Your task to perform on an android device: Open sound settings Image 0: 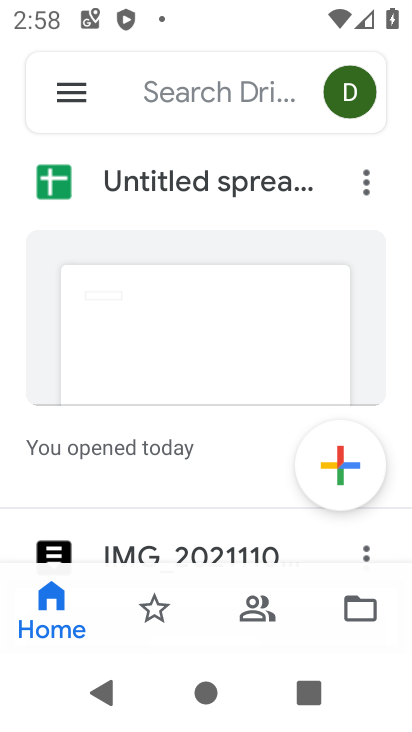
Step 0: press home button
Your task to perform on an android device: Open sound settings Image 1: 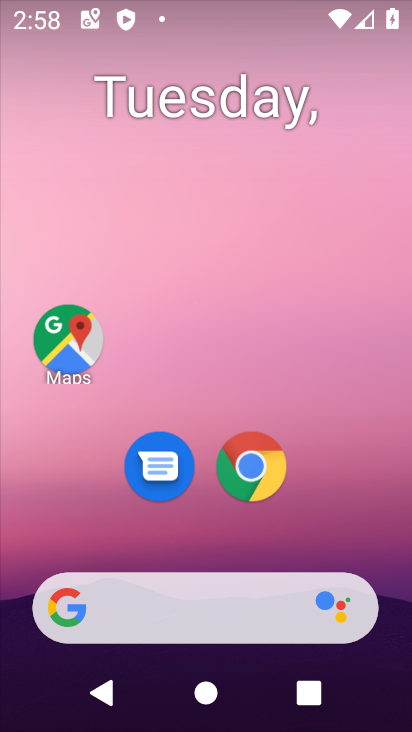
Step 1: drag from (318, 521) to (266, 92)
Your task to perform on an android device: Open sound settings Image 2: 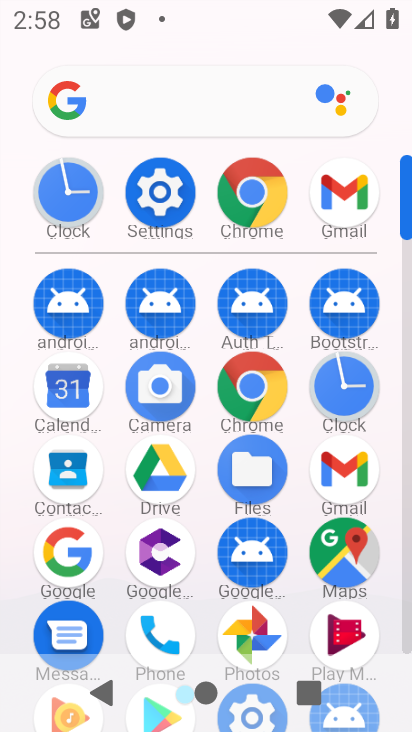
Step 2: click (155, 215)
Your task to perform on an android device: Open sound settings Image 3: 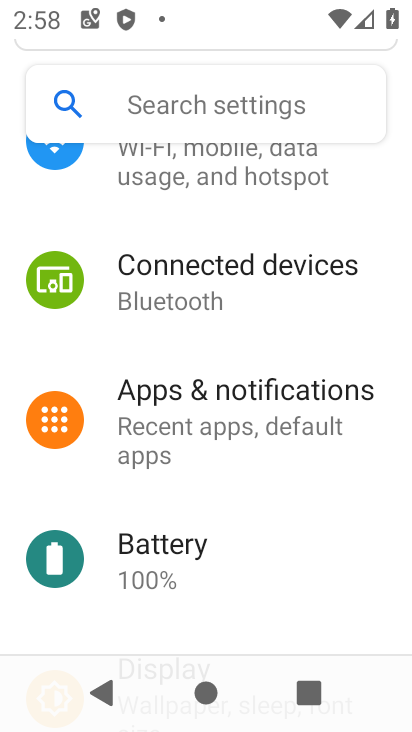
Step 3: drag from (204, 519) to (225, 172)
Your task to perform on an android device: Open sound settings Image 4: 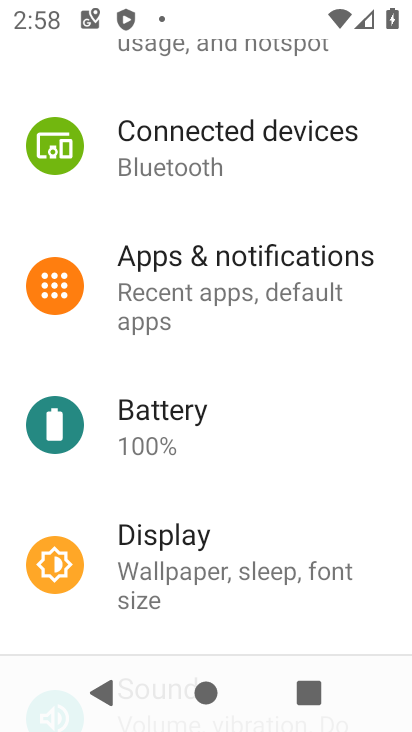
Step 4: drag from (178, 643) to (182, 351)
Your task to perform on an android device: Open sound settings Image 5: 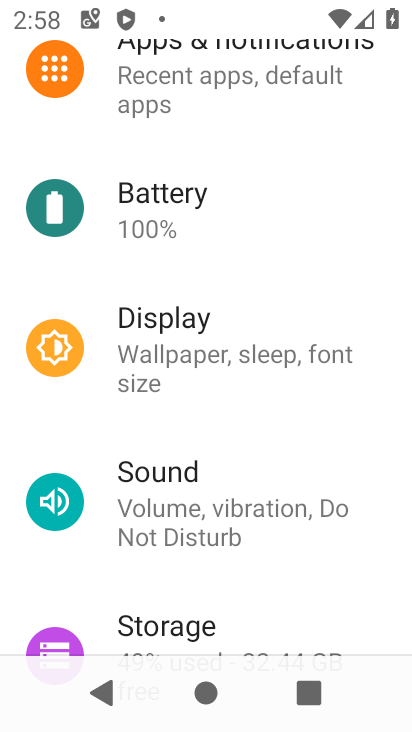
Step 5: click (181, 463)
Your task to perform on an android device: Open sound settings Image 6: 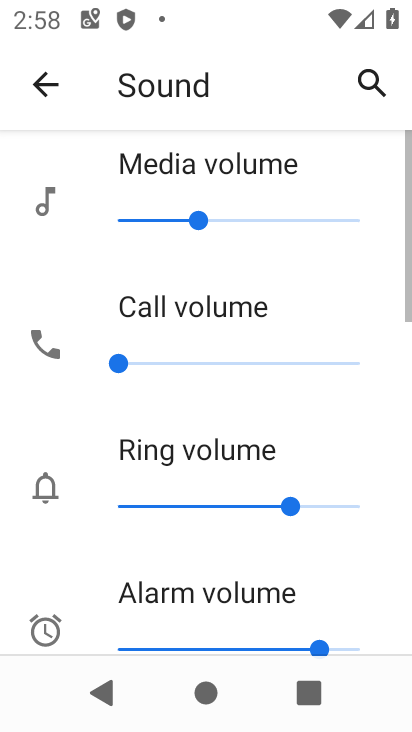
Step 6: task complete